Your task to perform on an android device: turn notification dots off Image 0: 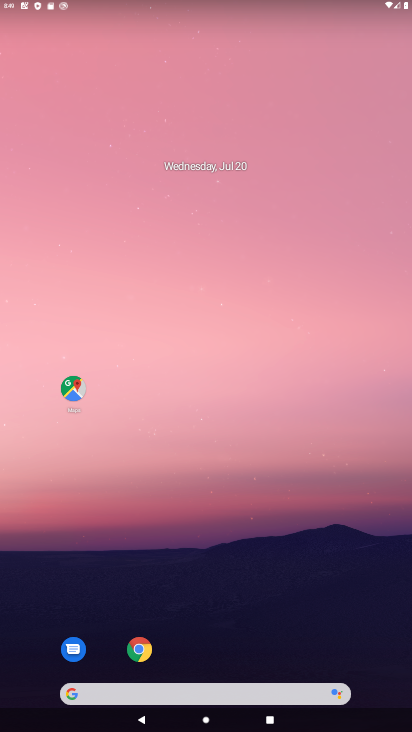
Step 0: drag from (256, 645) to (164, 3)
Your task to perform on an android device: turn notification dots off Image 1: 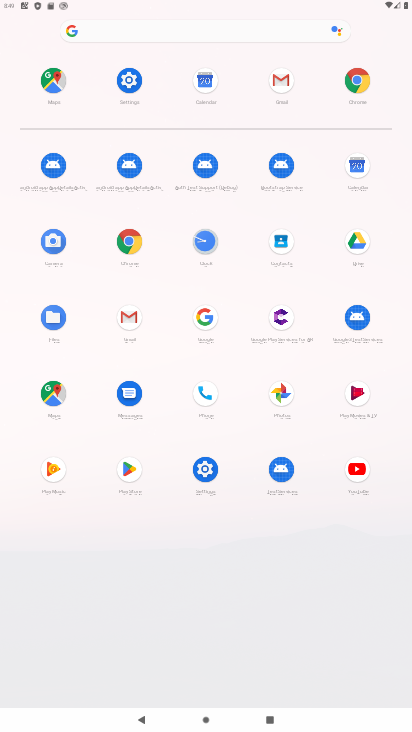
Step 1: click (135, 96)
Your task to perform on an android device: turn notification dots off Image 2: 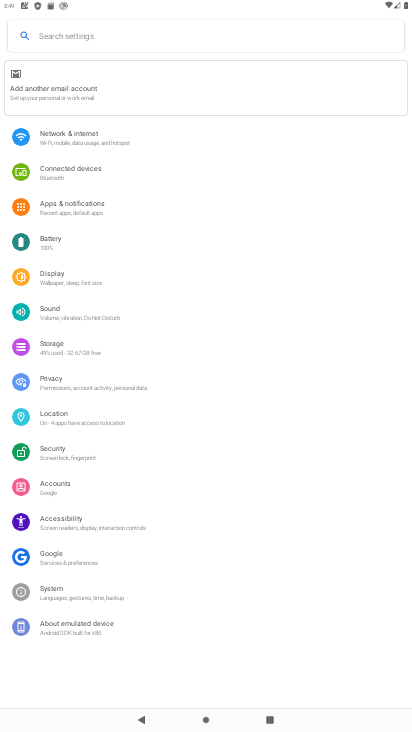
Step 2: click (177, 215)
Your task to perform on an android device: turn notification dots off Image 3: 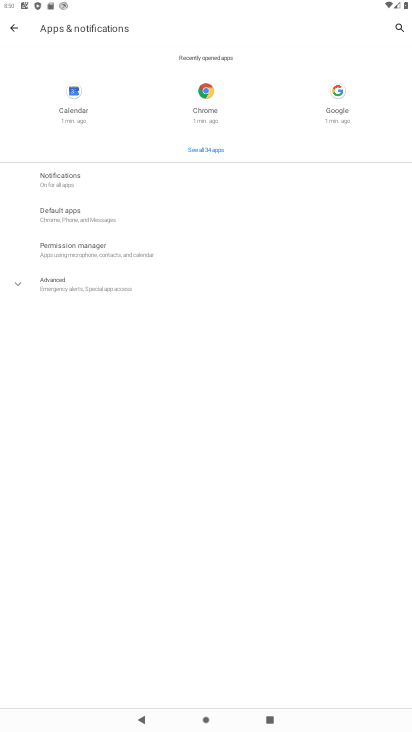
Step 3: click (113, 198)
Your task to perform on an android device: turn notification dots off Image 4: 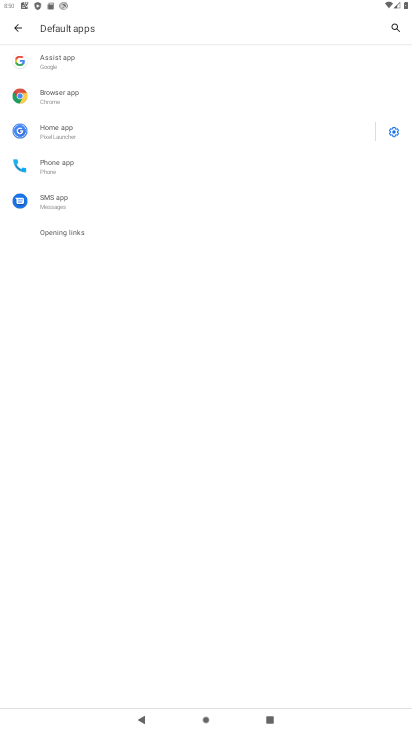
Step 4: task complete